Your task to perform on an android device: turn off javascript in the chrome app Image 0: 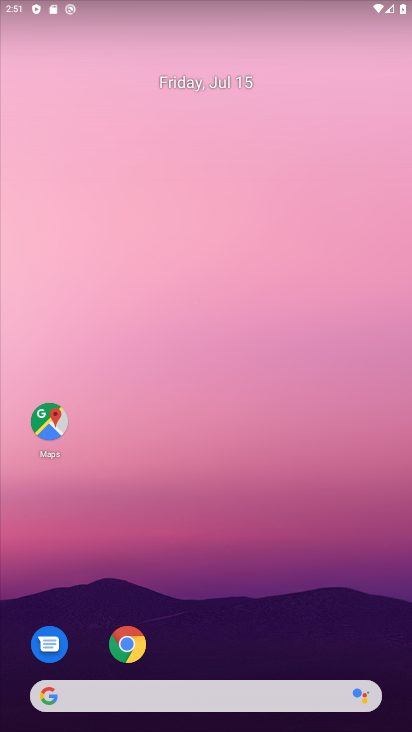
Step 0: click (121, 643)
Your task to perform on an android device: turn off javascript in the chrome app Image 1: 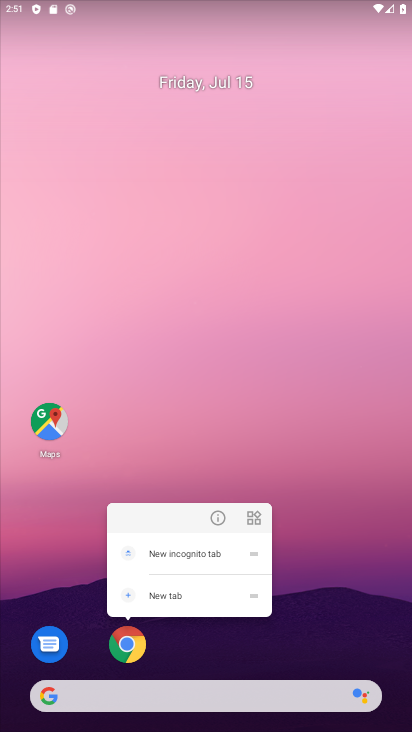
Step 1: click (122, 639)
Your task to perform on an android device: turn off javascript in the chrome app Image 2: 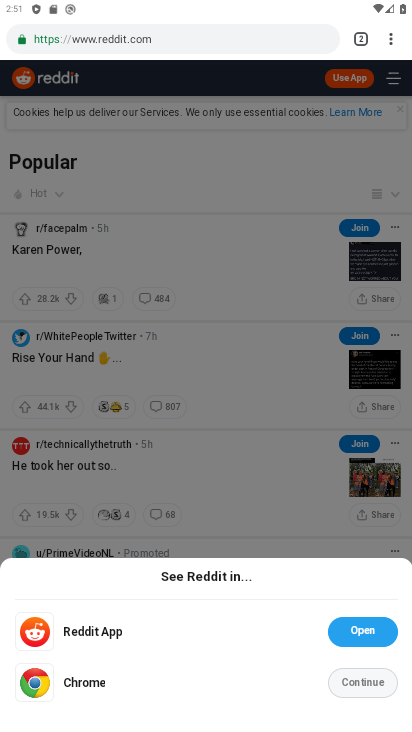
Step 2: drag from (395, 40) to (265, 465)
Your task to perform on an android device: turn off javascript in the chrome app Image 3: 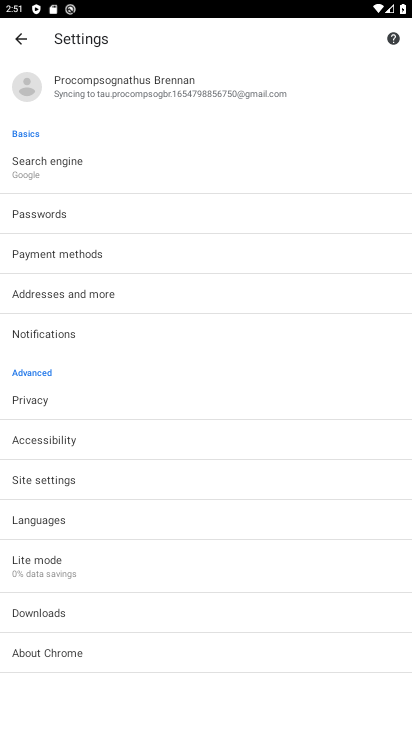
Step 3: click (69, 481)
Your task to perform on an android device: turn off javascript in the chrome app Image 4: 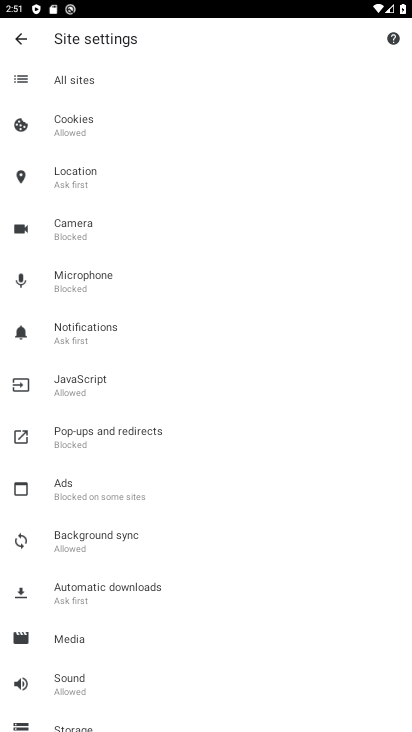
Step 4: click (109, 384)
Your task to perform on an android device: turn off javascript in the chrome app Image 5: 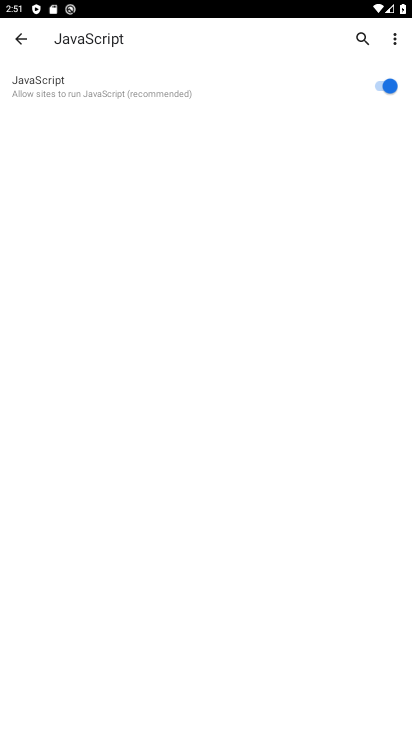
Step 5: click (379, 85)
Your task to perform on an android device: turn off javascript in the chrome app Image 6: 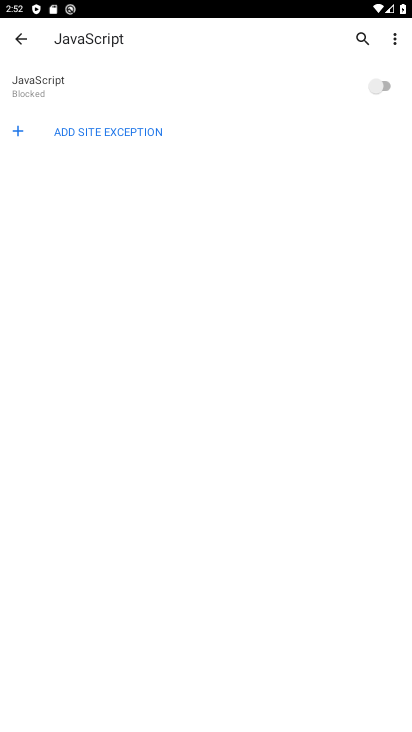
Step 6: task complete